Your task to perform on an android device: Open Chrome and go to the settings page Image 0: 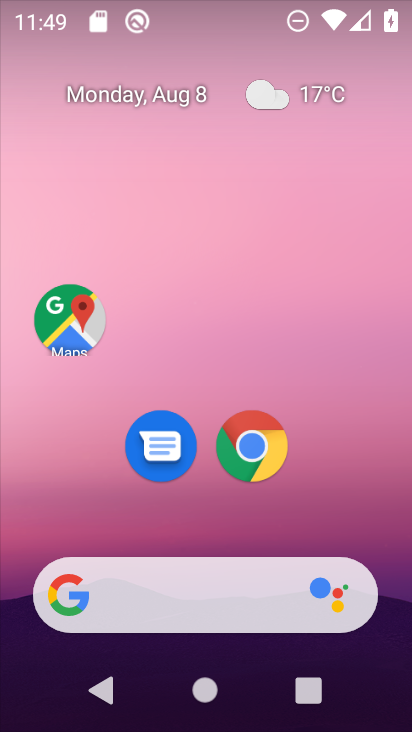
Step 0: click (250, 448)
Your task to perform on an android device: Open Chrome and go to the settings page Image 1: 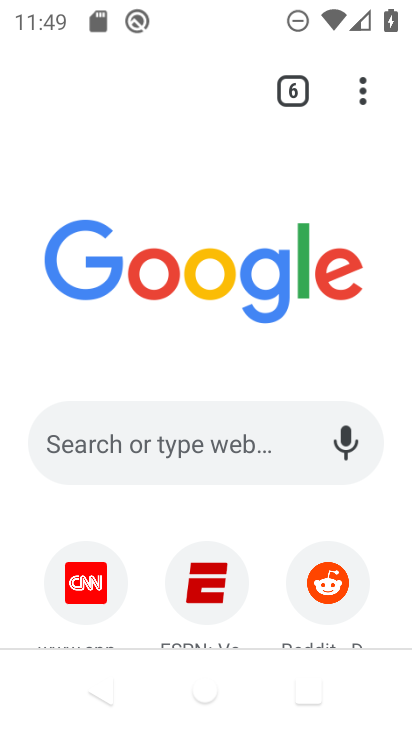
Step 1: click (360, 107)
Your task to perform on an android device: Open Chrome and go to the settings page Image 2: 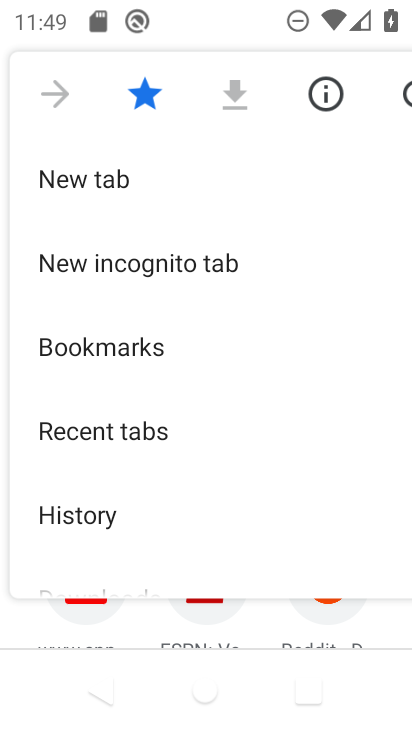
Step 2: drag from (232, 546) to (179, 242)
Your task to perform on an android device: Open Chrome and go to the settings page Image 3: 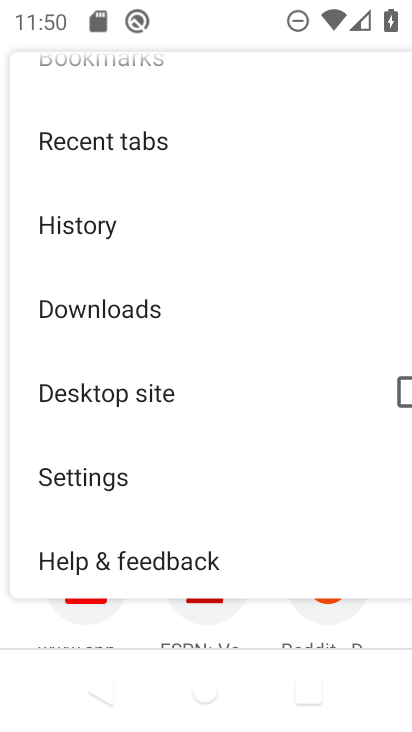
Step 3: click (87, 483)
Your task to perform on an android device: Open Chrome and go to the settings page Image 4: 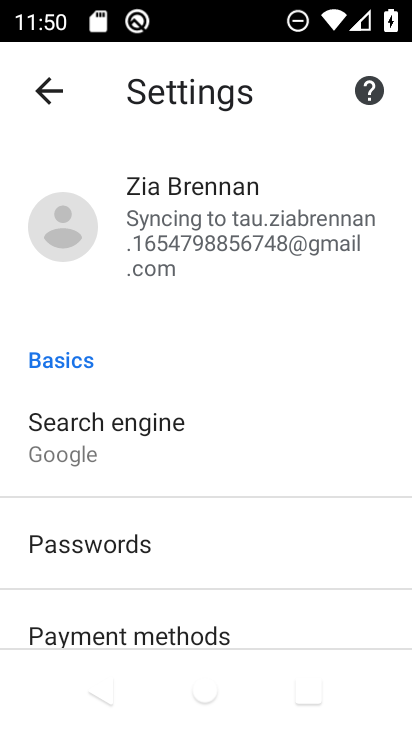
Step 4: task complete